Your task to perform on an android device: refresh tabs in the chrome app Image 0: 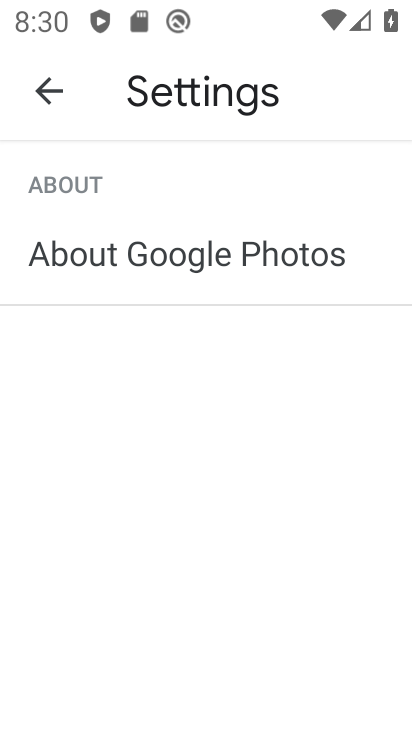
Step 0: press home button
Your task to perform on an android device: refresh tabs in the chrome app Image 1: 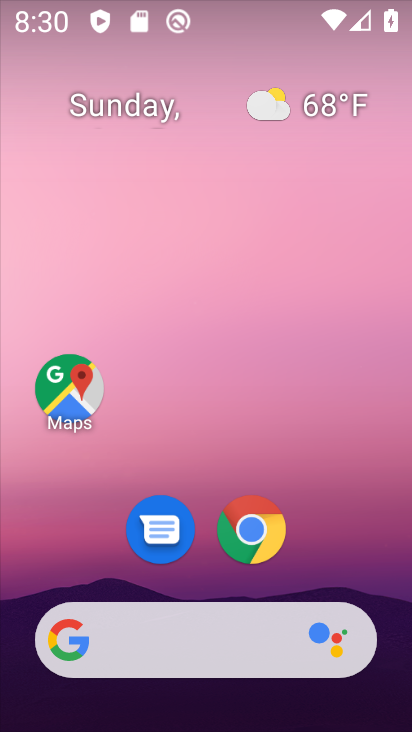
Step 1: click (250, 521)
Your task to perform on an android device: refresh tabs in the chrome app Image 2: 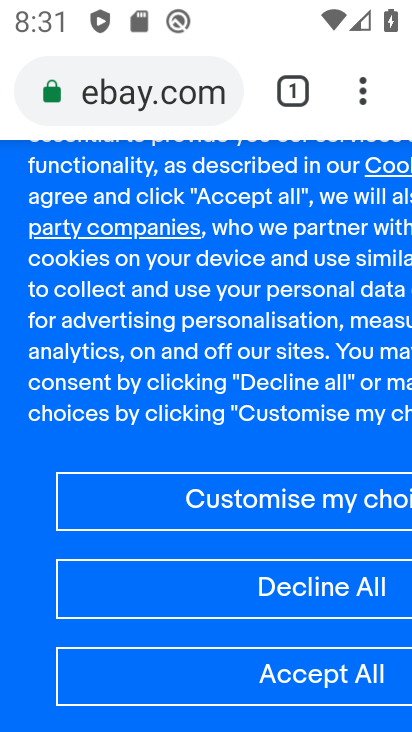
Step 2: click (363, 88)
Your task to perform on an android device: refresh tabs in the chrome app Image 3: 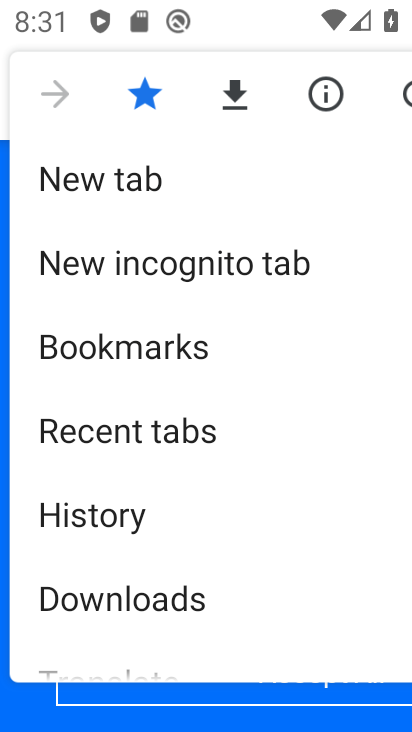
Step 3: click (398, 94)
Your task to perform on an android device: refresh tabs in the chrome app Image 4: 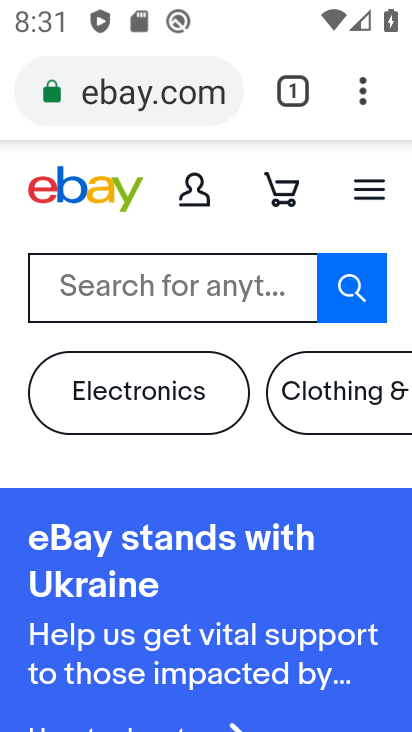
Step 4: task complete